Your task to perform on an android device: turn off priority inbox in the gmail app Image 0: 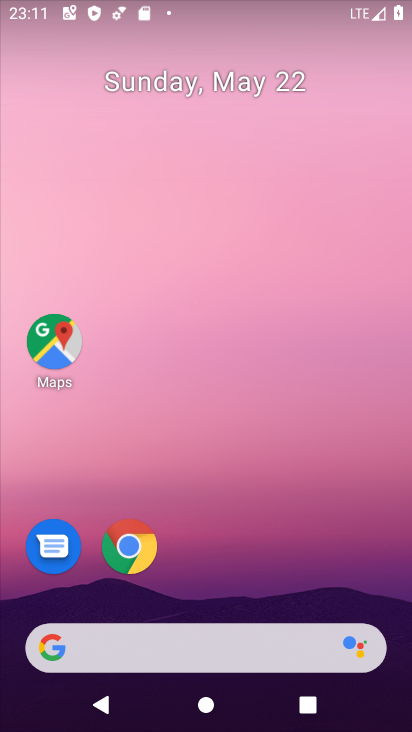
Step 0: drag from (210, 606) to (301, 60)
Your task to perform on an android device: turn off priority inbox in the gmail app Image 1: 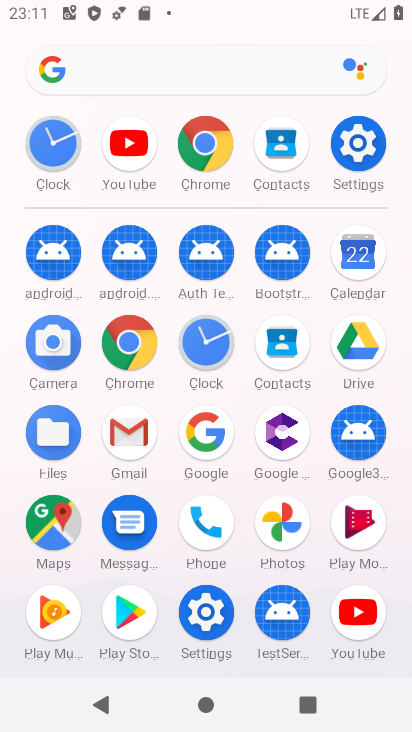
Step 1: drag from (243, 564) to (270, 180)
Your task to perform on an android device: turn off priority inbox in the gmail app Image 2: 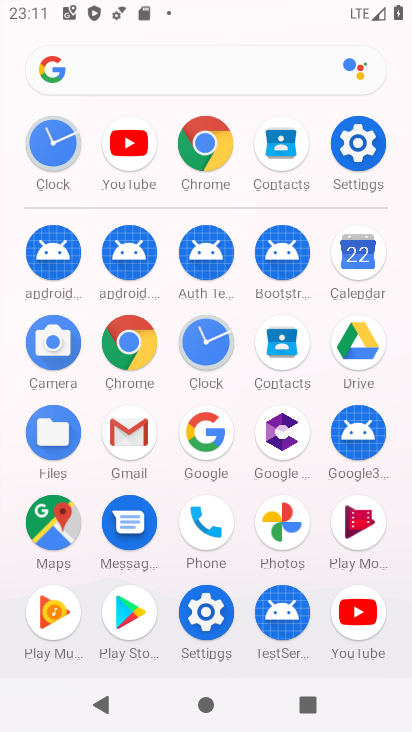
Step 2: click (119, 440)
Your task to perform on an android device: turn off priority inbox in the gmail app Image 3: 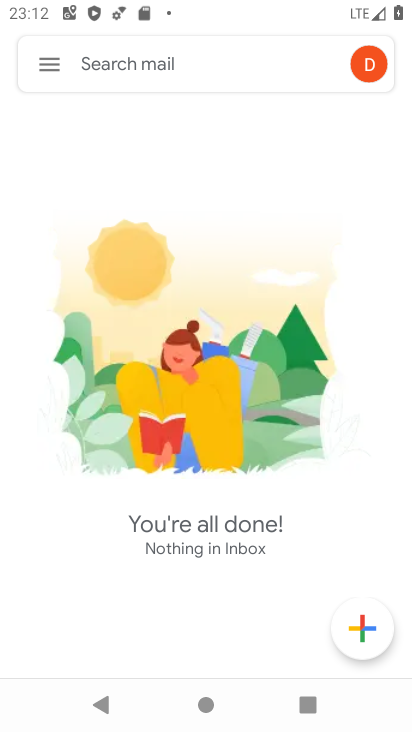
Step 3: click (52, 41)
Your task to perform on an android device: turn off priority inbox in the gmail app Image 4: 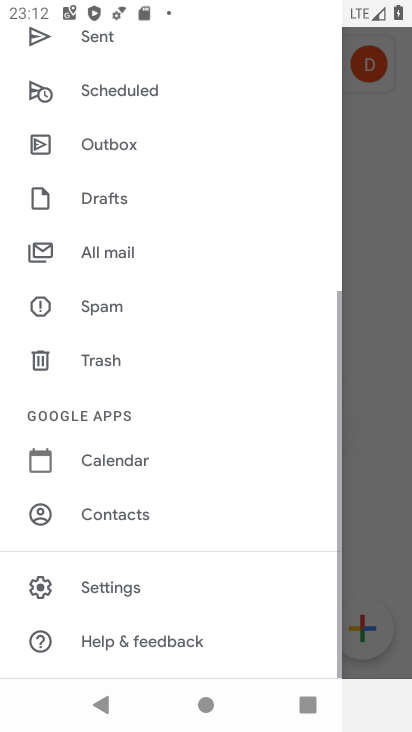
Step 4: drag from (192, 535) to (235, 185)
Your task to perform on an android device: turn off priority inbox in the gmail app Image 5: 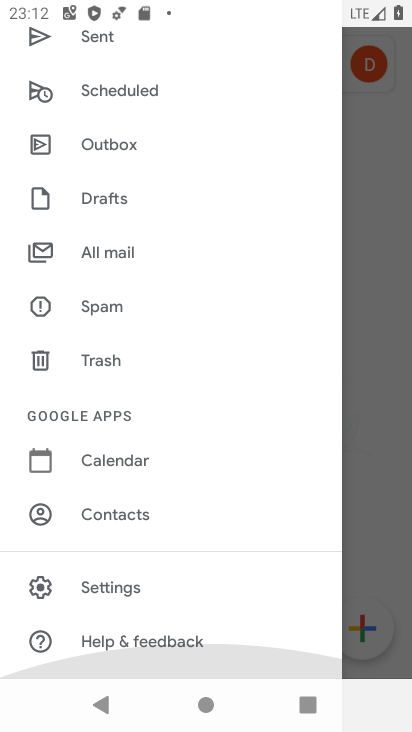
Step 5: drag from (200, 361) to (196, 720)
Your task to perform on an android device: turn off priority inbox in the gmail app Image 6: 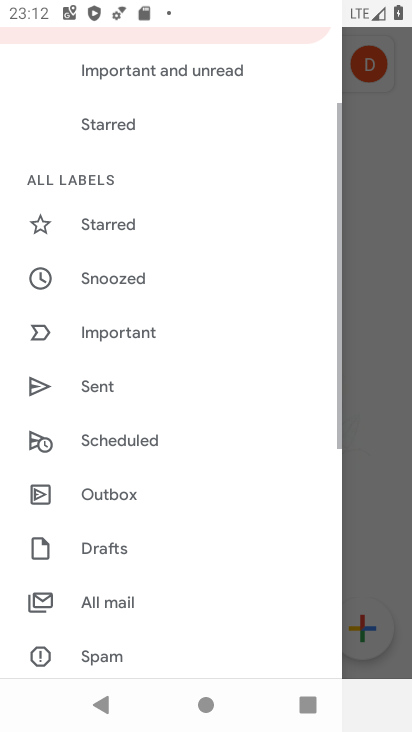
Step 6: drag from (149, 594) to (248, 123)
Your task to perform on an android device: turn off priority inbox in the gmail app Image 7: 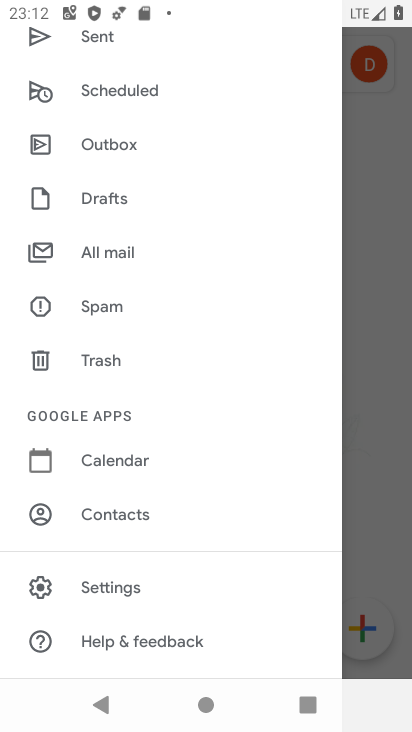
Step 7: click (121, 581)
Your task to perform on an android device: turn off priority inbox in the gmail app Image 8: 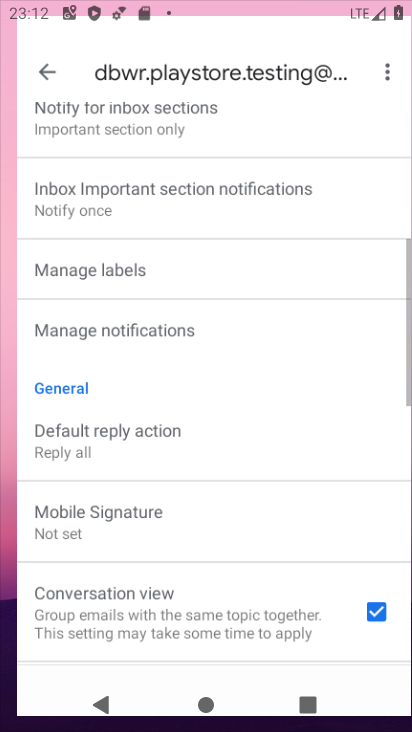
Step 8: drag from (152, 482) to (208, 3)
Your task to perform on an android device: turn off priority inbox in the gmail app Image 9: 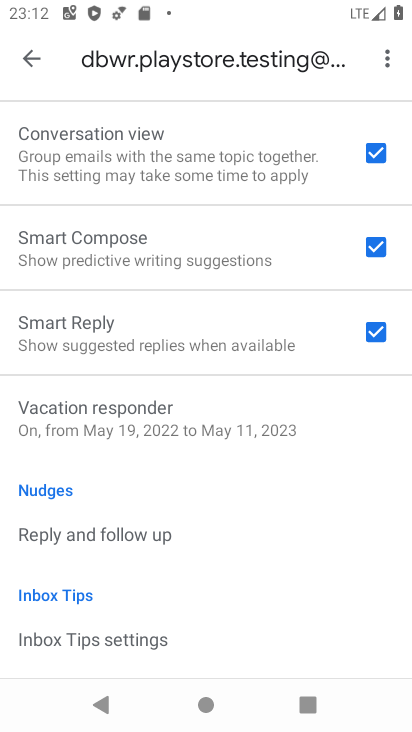
Step 9: drag from (168, 126) to (203, 729)
Your task to perform on an android device: turn off priority inbox in the gmail app Image 10: 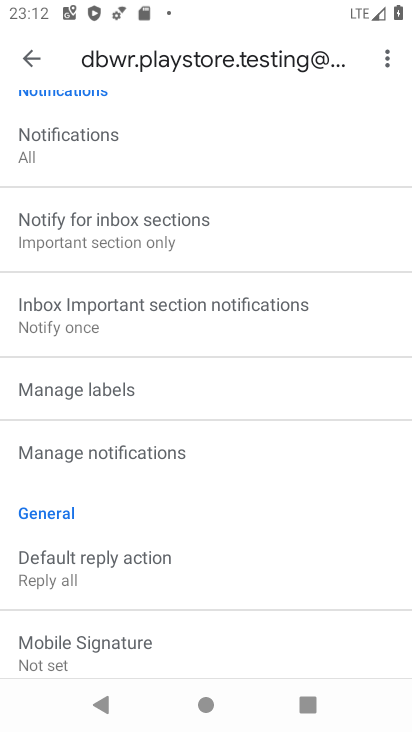
Step 10: drag from (130, 189) to (159, 687)
Your task to perform on an android device: turn off priority inbox in the gmail app Image 11: 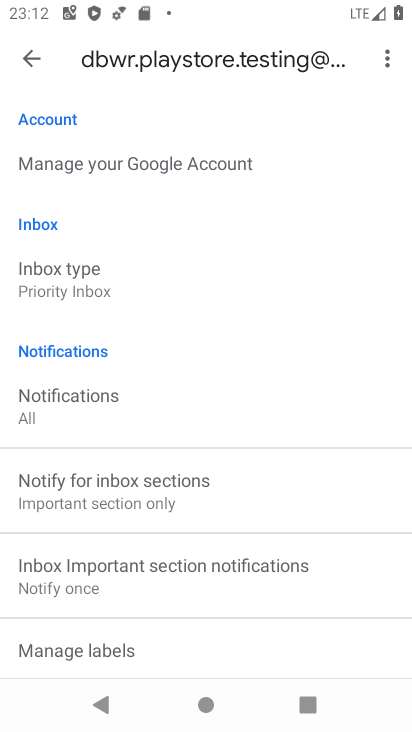
Step 11: click (97, 270)
Your task to perform on an android device: turn off priority inbox in the gmail app Image 12: 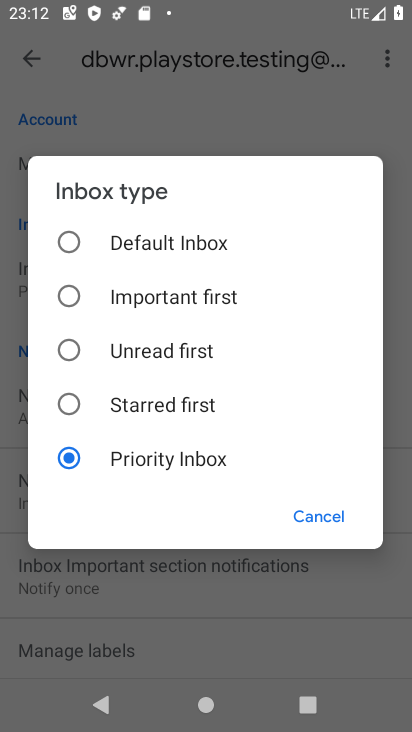
Step 12: click (134, 248)
Your task to perform on an android device: turn off priority inbox in the gmail app Image 13: 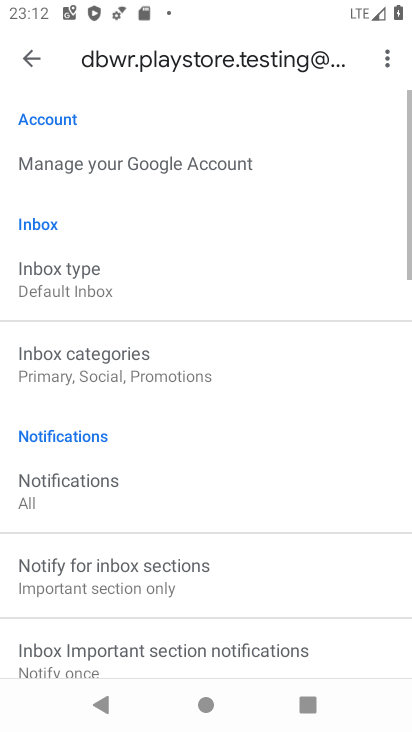
Step 13: task complete